Your task to perform on an android device: toggle translation in the chrome app Image 0: 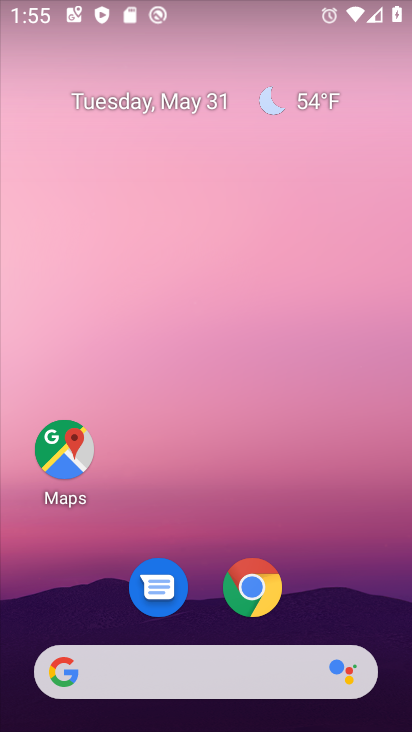
Step 0: drag from (269, 22) to (4, 402)
Your task to perform on an android device: toggle translation in the chrome app Image 1: 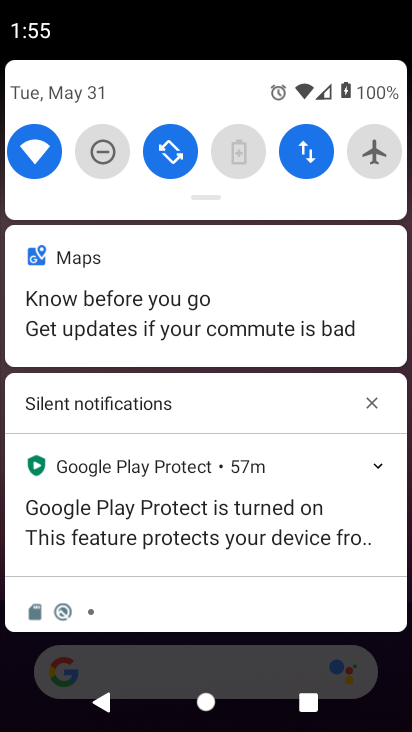
Step 1: press home button
Your task to perform on an android device: toggle translation in the chrome app Image 2: 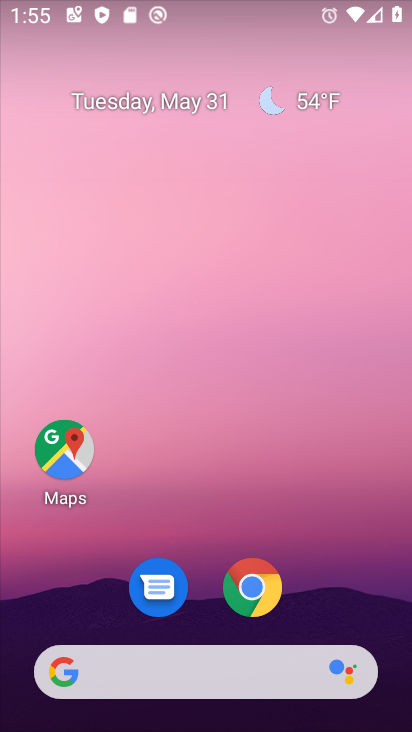
Step 2: drag from (215, 600) to (218, 51)
Your task to perform on an android device: toggle translation in the chrome app Image 3: 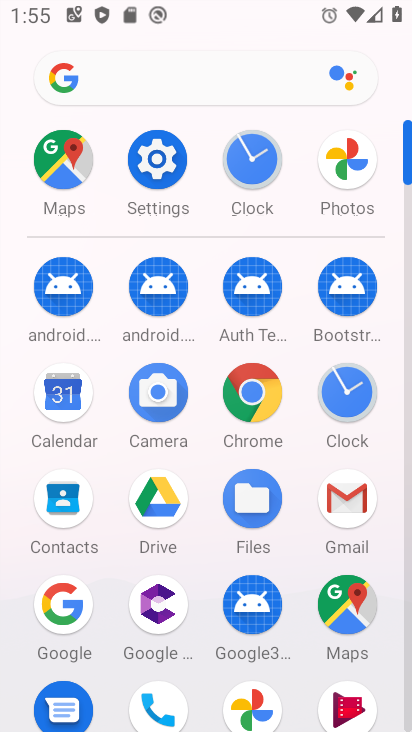
Step 3: click (253, 411)
Your task to perform on an android device: toggle translation in the chrome app Image 4: 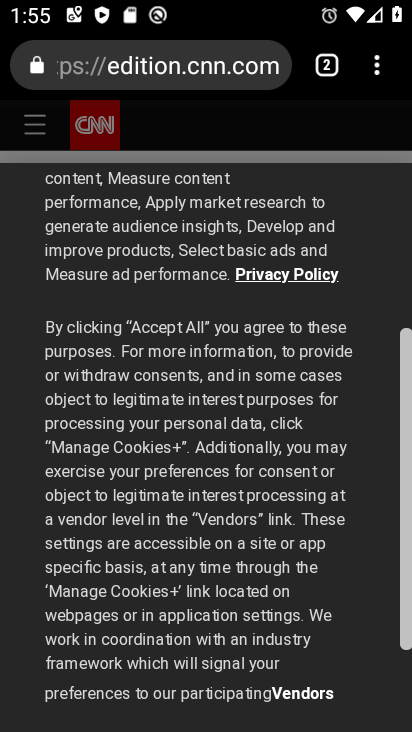
Step 4: drag from (369, 69) to (160, 629)
Your task to perform on an android device: toggle translation in the chrome app Image 5: 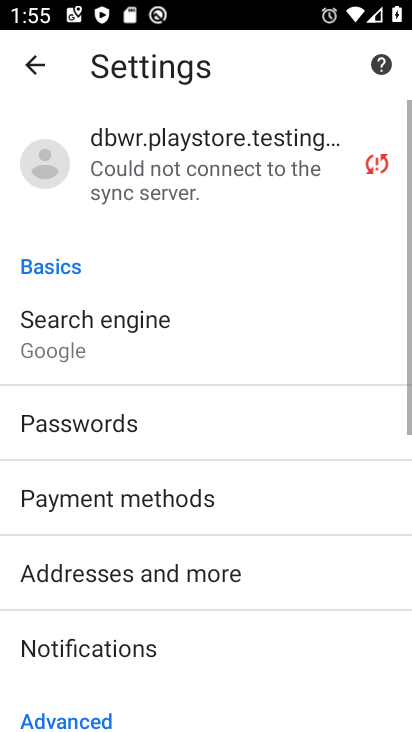
Step 5: drag from (146, 486) to (191, 35)
Your task to perform on an android device: toggle translation in the chrome app Image 6: 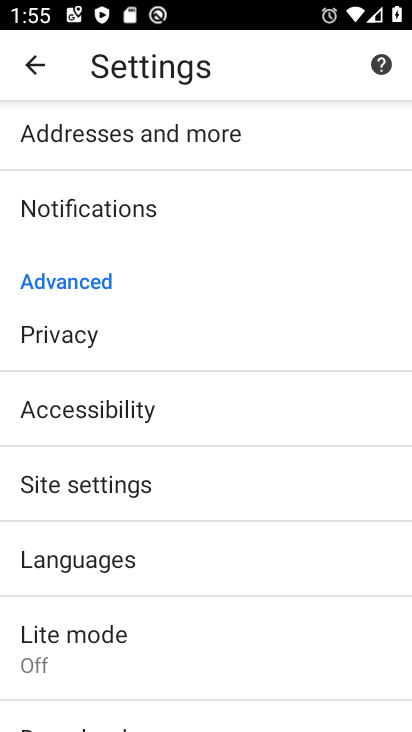
Step 6: click (66, 549)
Your task to perform on an android device: toggle translation in the chrome app Image 7: 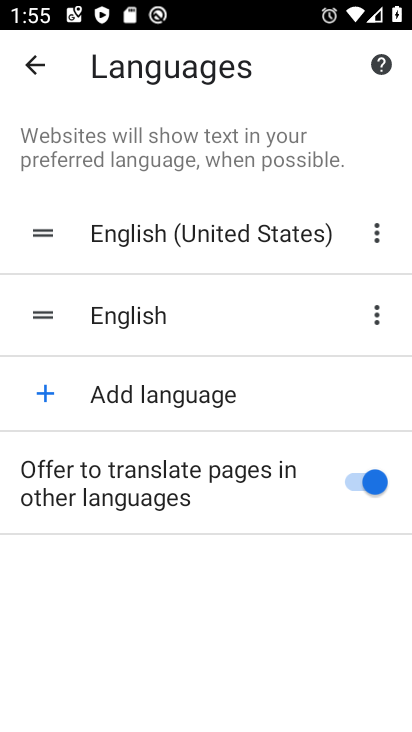
Step 7: click (364, 480)
Your task to perform on an android device: toggle translation in the chrome app Image 8: 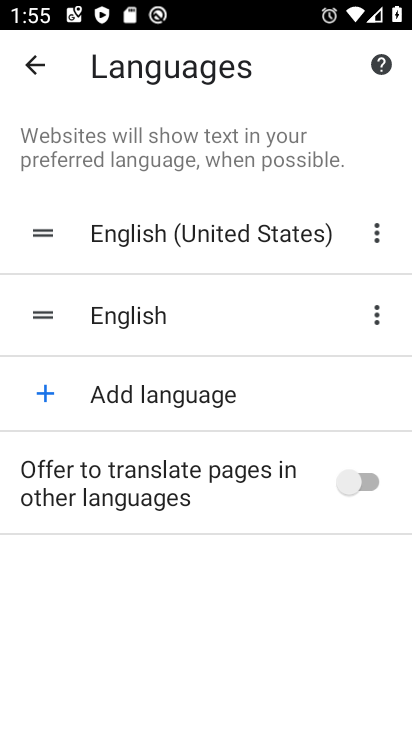
Step 8: task complete